Your task to perform on an android device: Open Google Chrome Image 0: 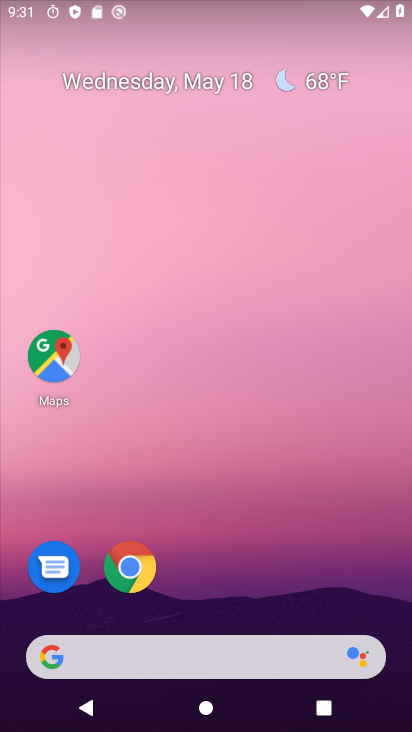
Step 0: click (137, 556)
Your task to perform on an android device: Open Google Chrome Image 1: 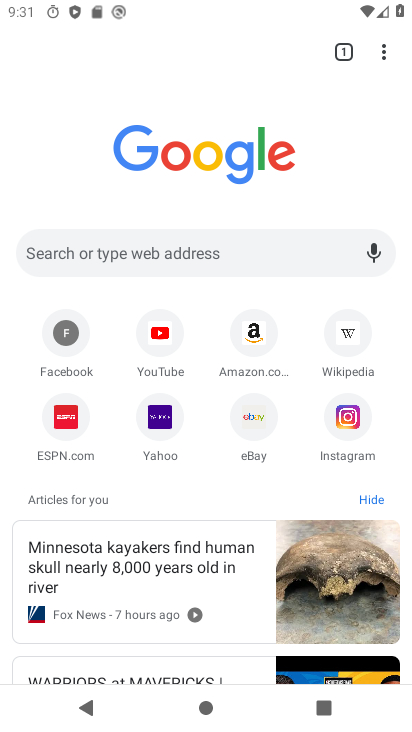
Step 1: task complete